Your task to perform on an android device: turn pop-ups on in chrome Image 0: 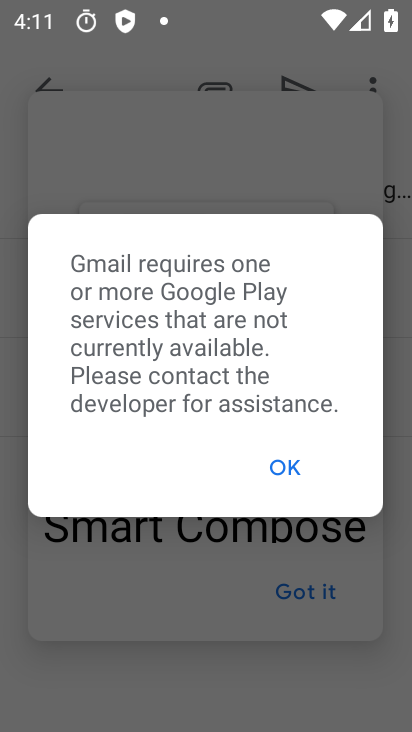
Step 0: press home button
Your task to perform on an android device: turn pop-ups on in chrome Image 1: 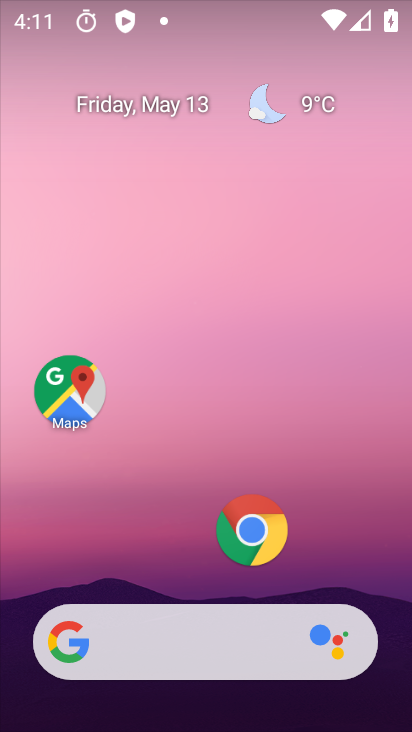
Step 1: click (249, 524)
Your task to perform on an android device: turn pop-ups on in chrome Image 2: 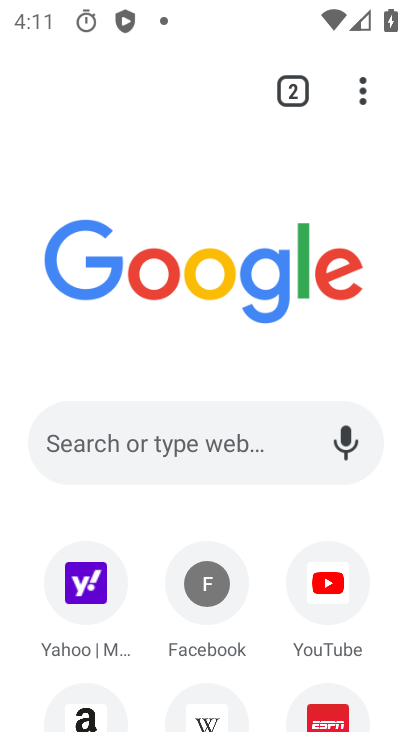
Step 2: click (363, 90)
Your task to perform on an android device: turn pop-ups on in chrome Image 3: 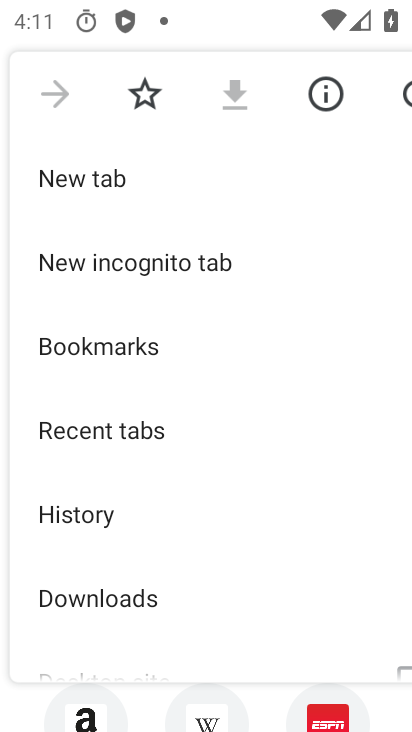
Step 3: drag from (188, 574) to (234, 71)
Your task to perform on an android device: turn pop-ups on in chrome Image 4: 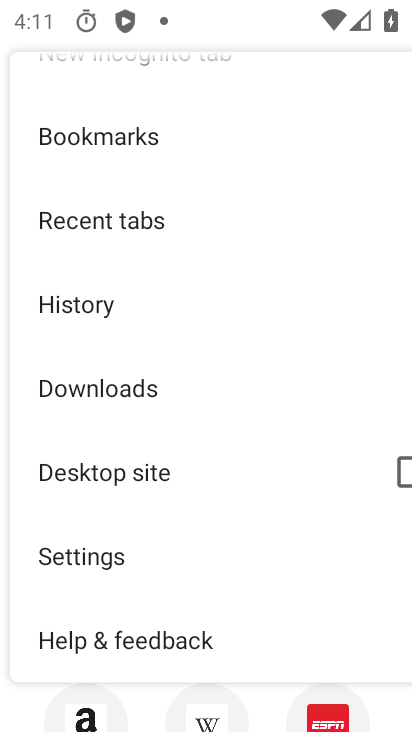
Step 4: click (133, 553)
Your task to perform on an android device: turn pop-ups on in chrome Image 5: 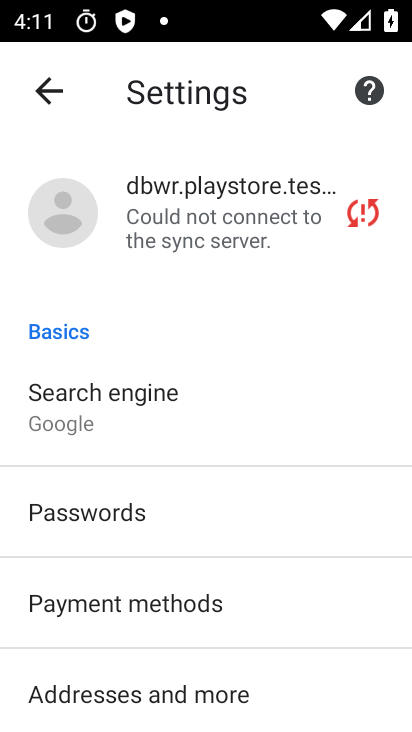
Step 5: drag from (258, 663) to (267, 439)
Your task to perform on an android device: turn pop-ups on in chrome Image 6: 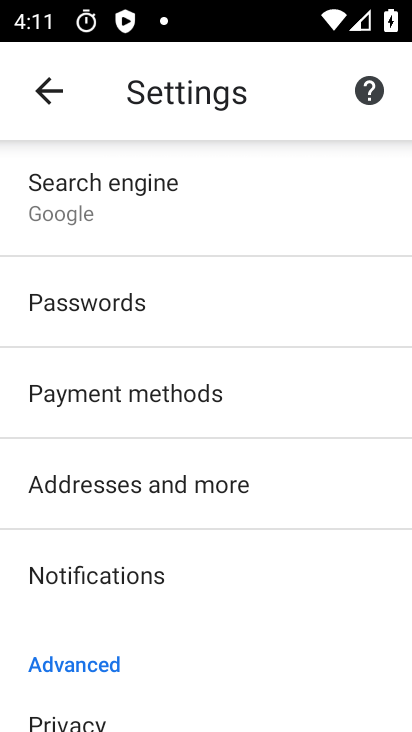
Step 6: drag from (186, 628) to (205, 142)
Your task to perform on an android device: turn pop-ups on in chrome Image 7: 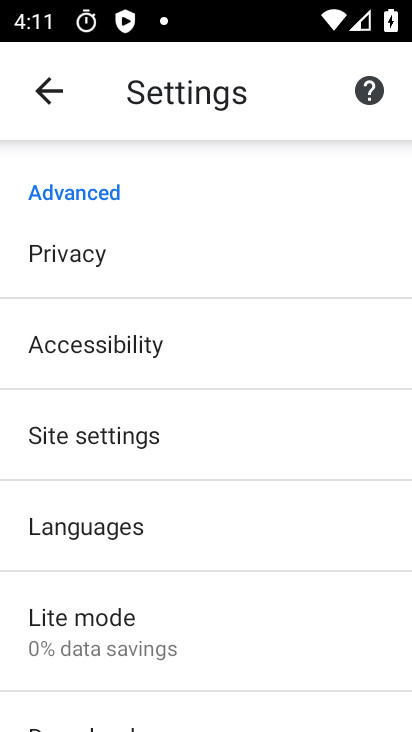
Step 7: drag from (195, 632) to (207, 217)
Your task to perform on an android device: turn pop-ups on in chrome Image 8: 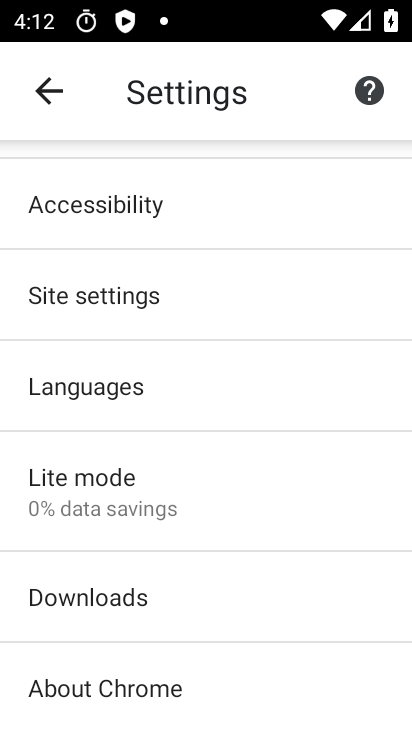
Step 8: click (174, 280)
Your task to perform on an android device: turn pop-ups on in chrome Image 9: 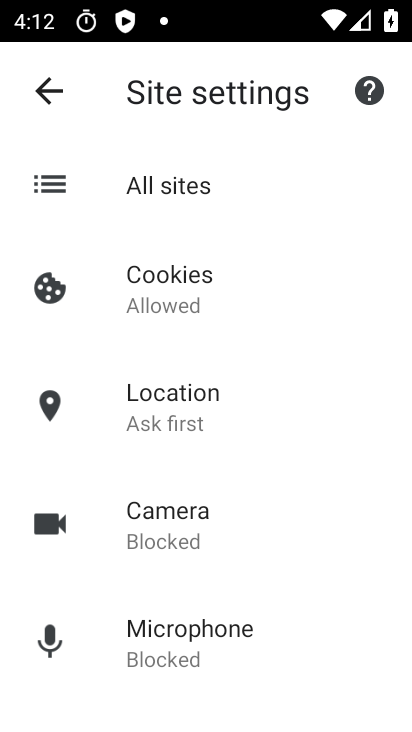
Step 9: drag from (235, 658) to (253, 263)
Your task to perform on an android device: turn pop-ups on in chrome Image 10: 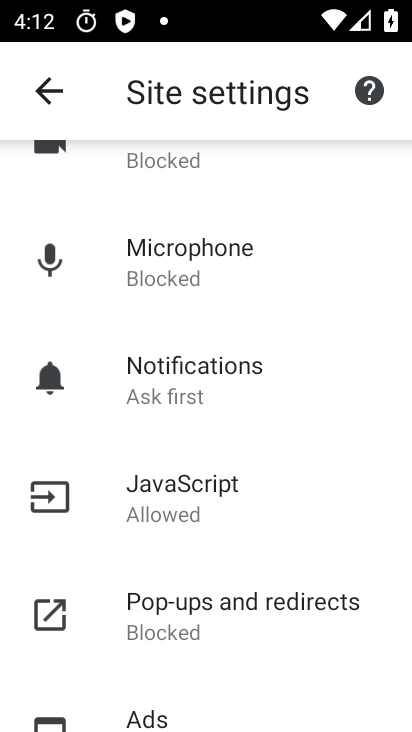
Step 10: click (206, 615)
Your task to perform on an android device: turn pop-ups on in chrome Image 11: 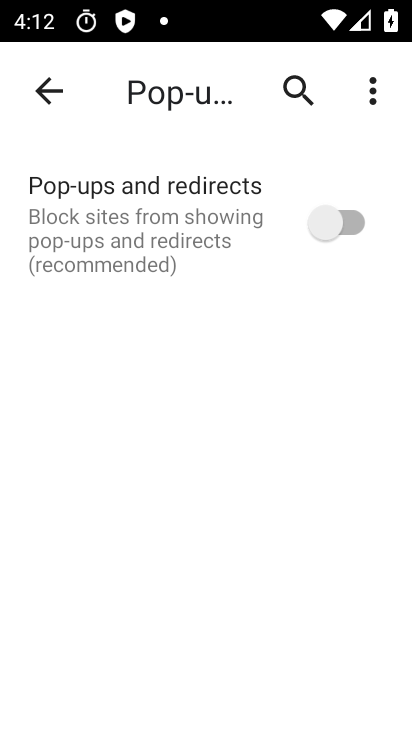
Step 11: click (348, 216)
Your task to perform on an android device: turn pop-ups on in chrome Image 12: 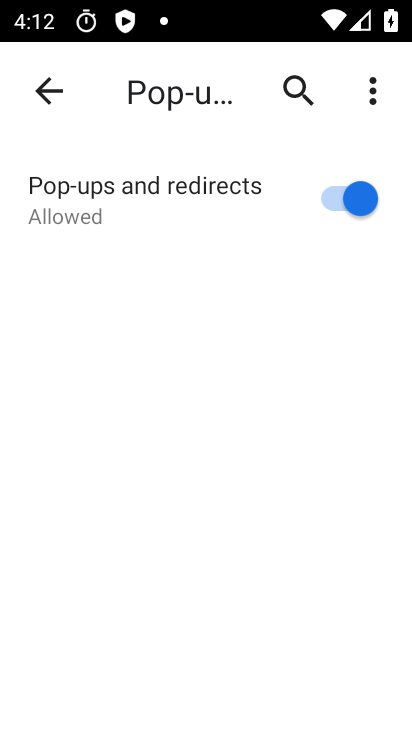
Step 12: task complete